Your task to perform on an android device: empty trash in the gmail app Image 0: 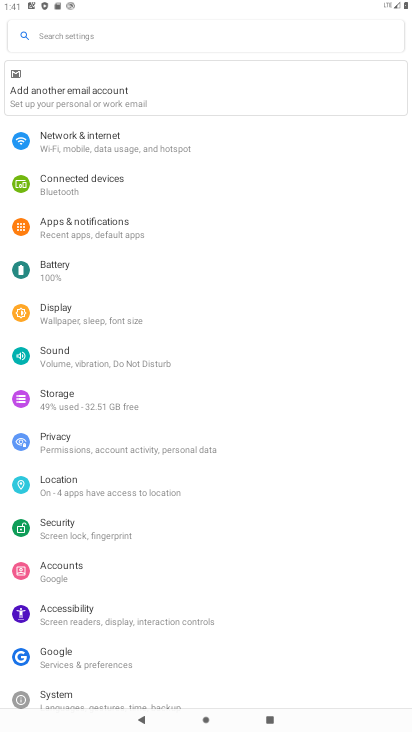
Step 0: press home button
Your task to perform on an android device: empty trash in the gmail app Image 1: 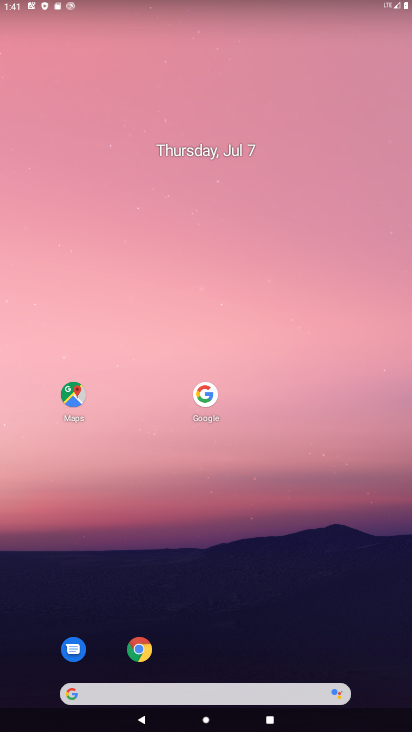
Step 1: drag from (365, 569) to (389, 89)
Your task to perform on an android device: empty trash in the gmail app Image 2: 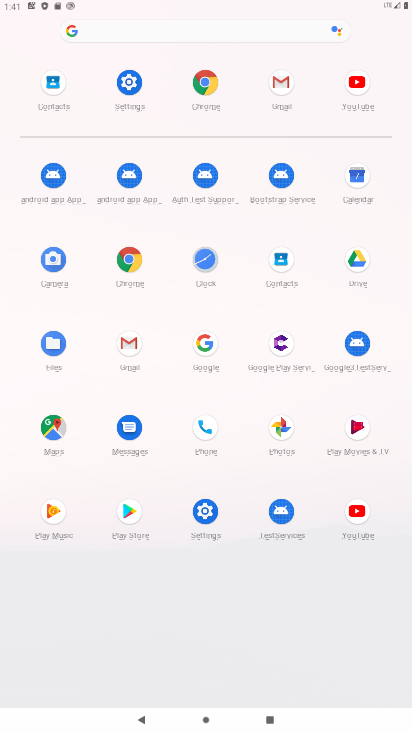
Step 2: click (274, 82)
Your task to perform on an android device: empty trash in the gmail app Image 3: 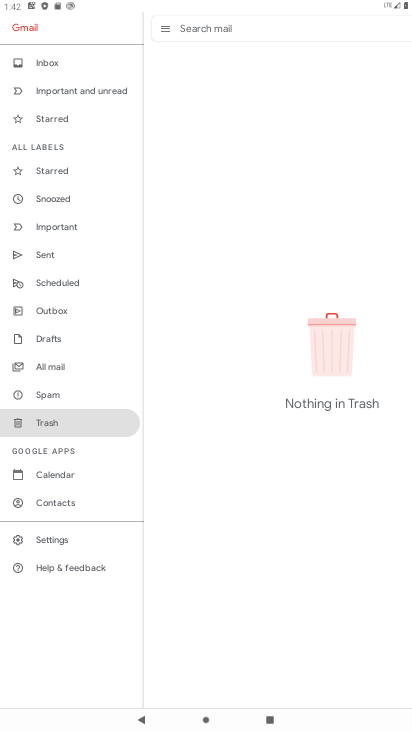
Step 3: click (75, 426)
Your task to perform on an android device: empty trash in the gmail app Image 4: 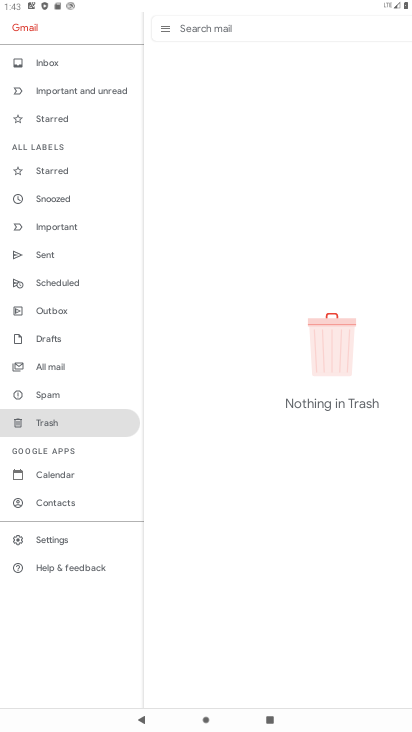
Step 4: task complete